Your task to perform on an android device: Do I have any events this weekend? Image 0: 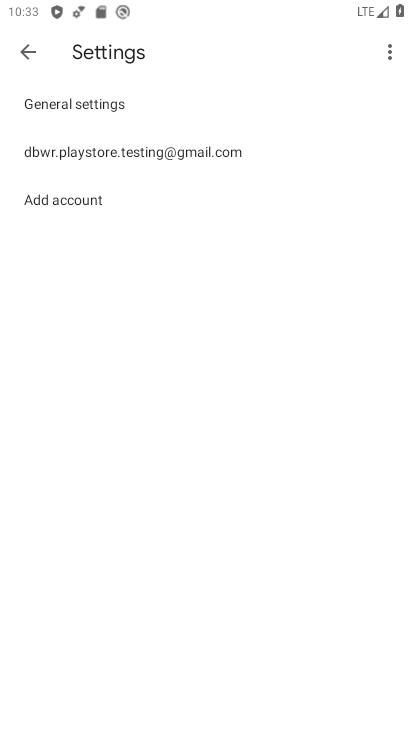
Step 0: press home button
Your task to perform on an android device: Do I have any events this weekend? Image 1: 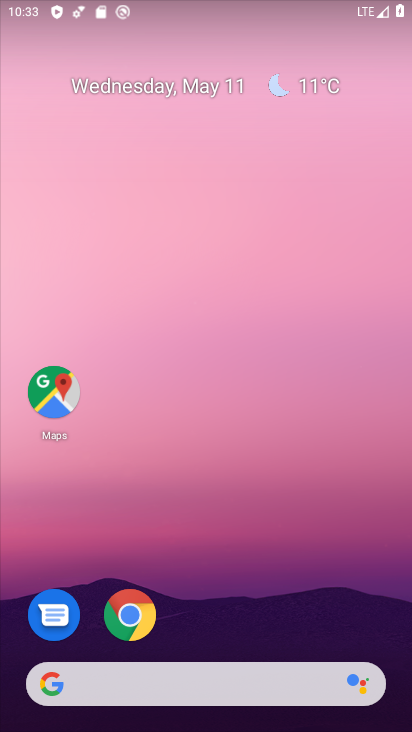
Step 1: drag from (162, 528) to (185, 68)
Your task to perform on an android device: Do I have any events this weekend? Image 2: 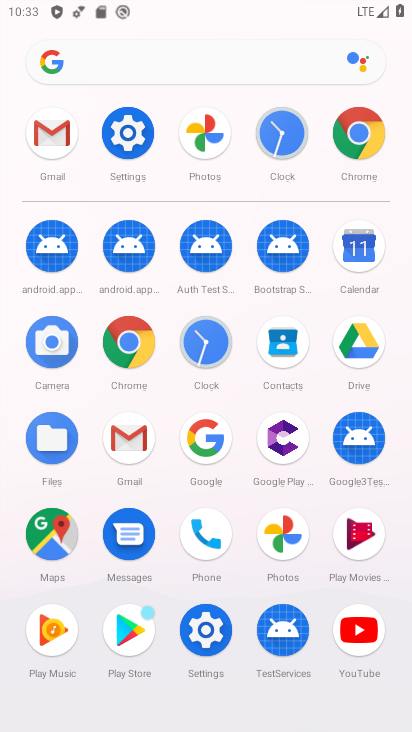
Step 2: click (361, 241)
Your task to perform on an android device: Do I have any events this weekend? Image 3: 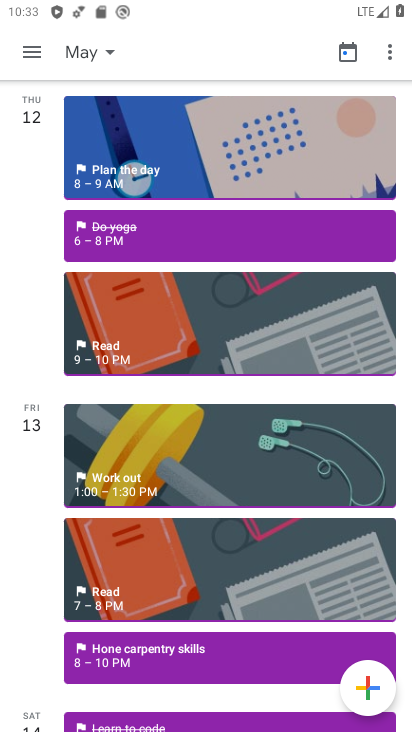
Step 3: click (69, 53)
Your task to perform on an android device: Do I have any events this weekend? Image 4: 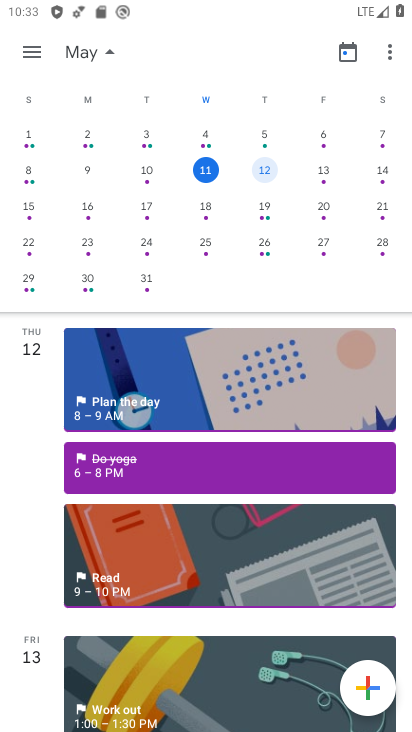
Step 4: click (381, 180)
Your task to perform on an android device: Do I have any events this weekend? Image 5: 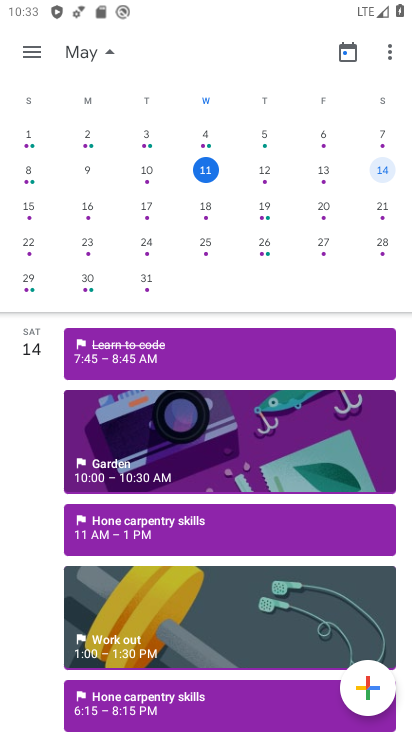
Step 5: drag from (132, 396) to (280, 59)
Your task to perform on an android device: Do I have any events this weekend? Image 6: 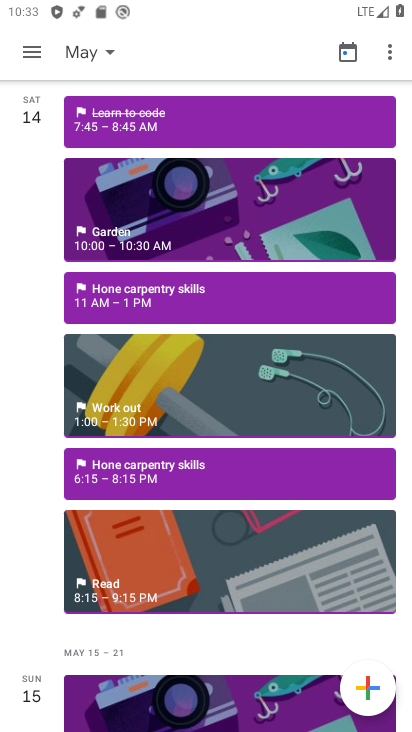
Step 6: click (27, 49)
Your task to perform on an android device: Do I have any events this weekend? Image 7: 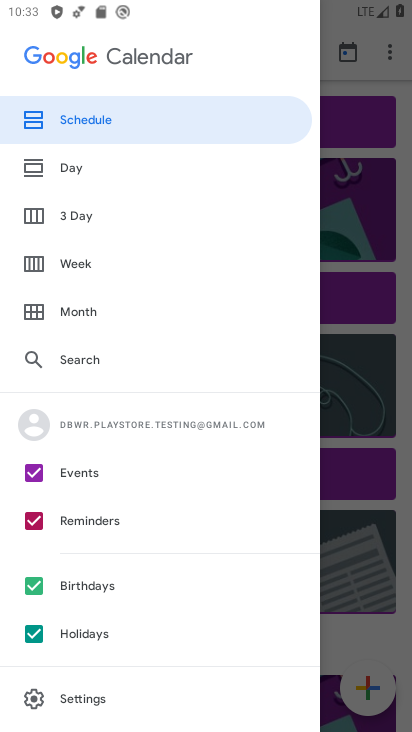
Step 7: click (340, 152)
Your task to perform on an android device: Do I have any events this weekend? Image 8: 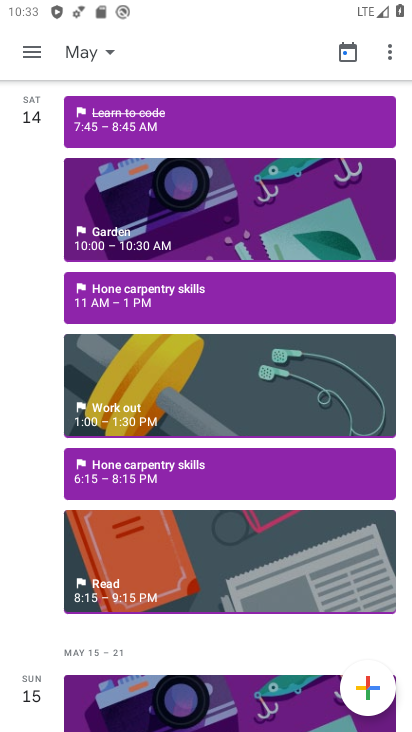
Step 8: task complete